Your task to perform on an android device: Show the shopping cart on newegg. Add "razer naga" to the cart on newegg Image 0: 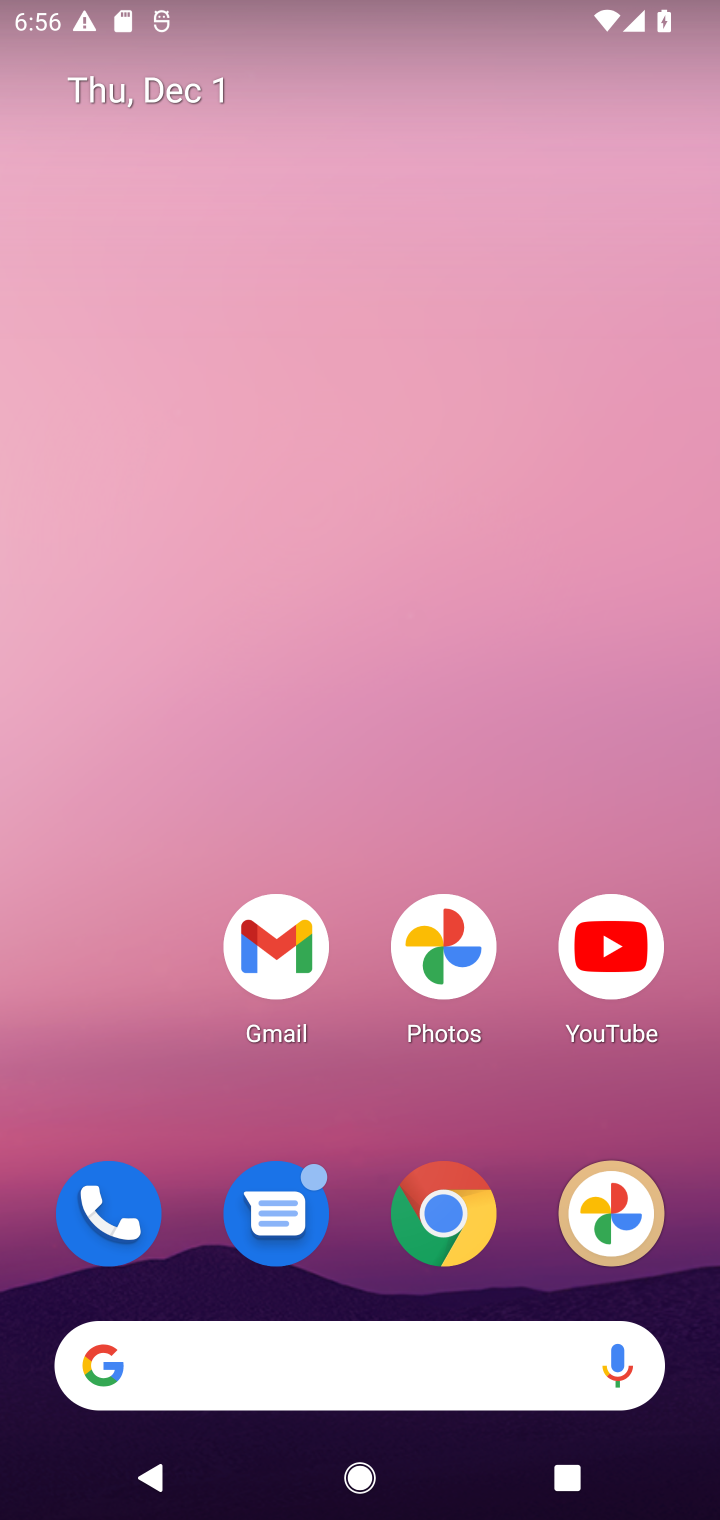
Step 0: click (435, 1383)
Your task to perform on an android device: Show the shopping cart on newegg. Add "razer naga" to the cart on newegg Image 1: 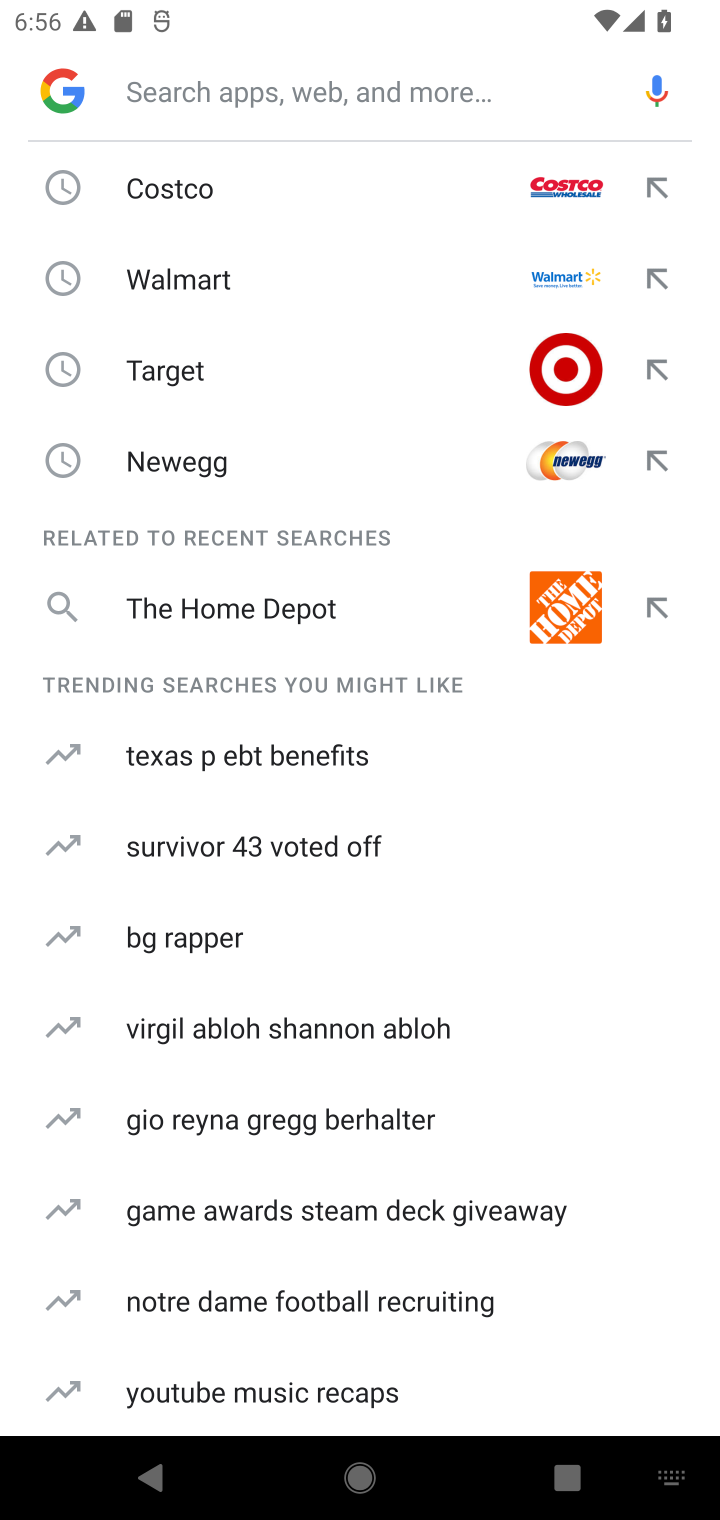
Step 1: type "newegg"
Your task to perform on an android device: Show the shopping cart on newegg. Add "razer naga" to the cart on newegg Image 2: 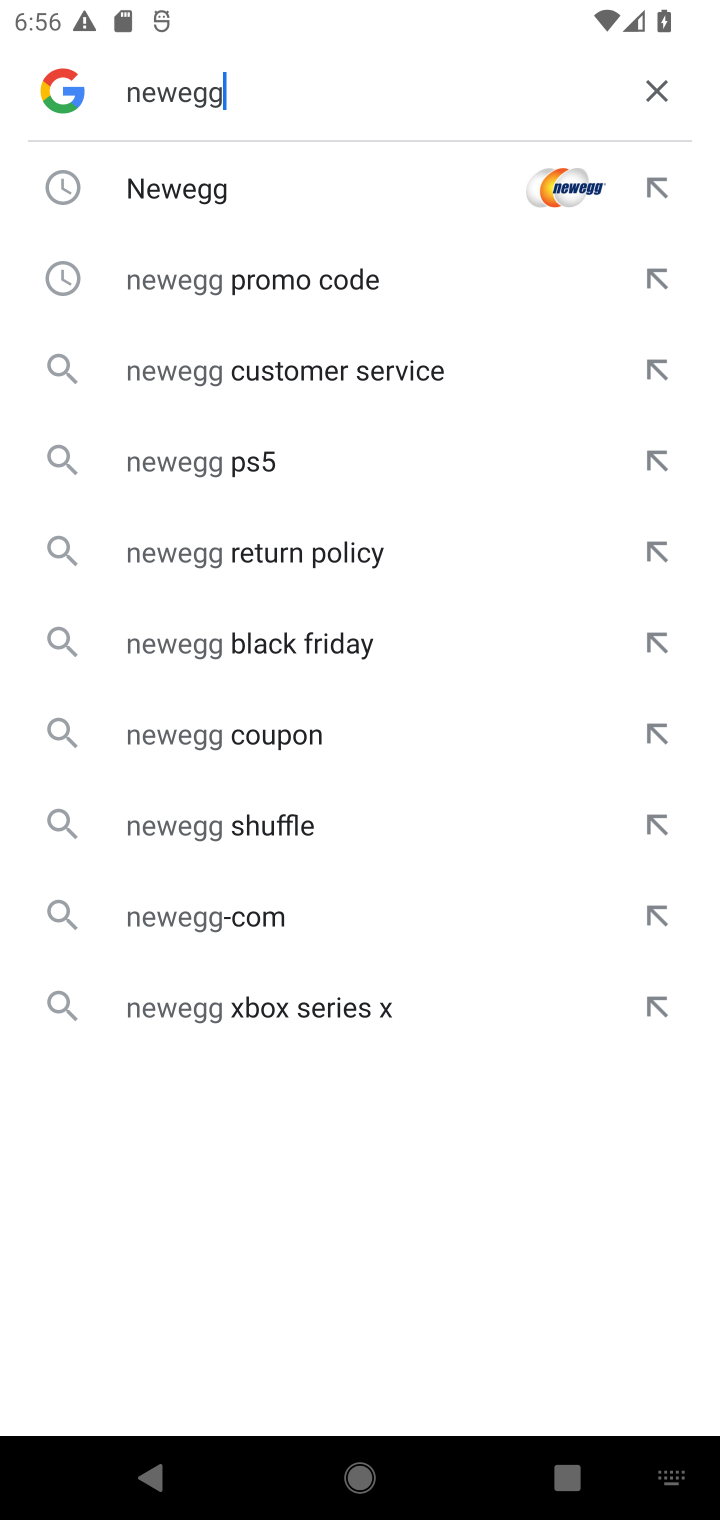
Step 2: click (383, 155)
Your task to perform on an android device: Show the shopping cart on newegg. Add "razer naga" to the cart on newegg Image 3: 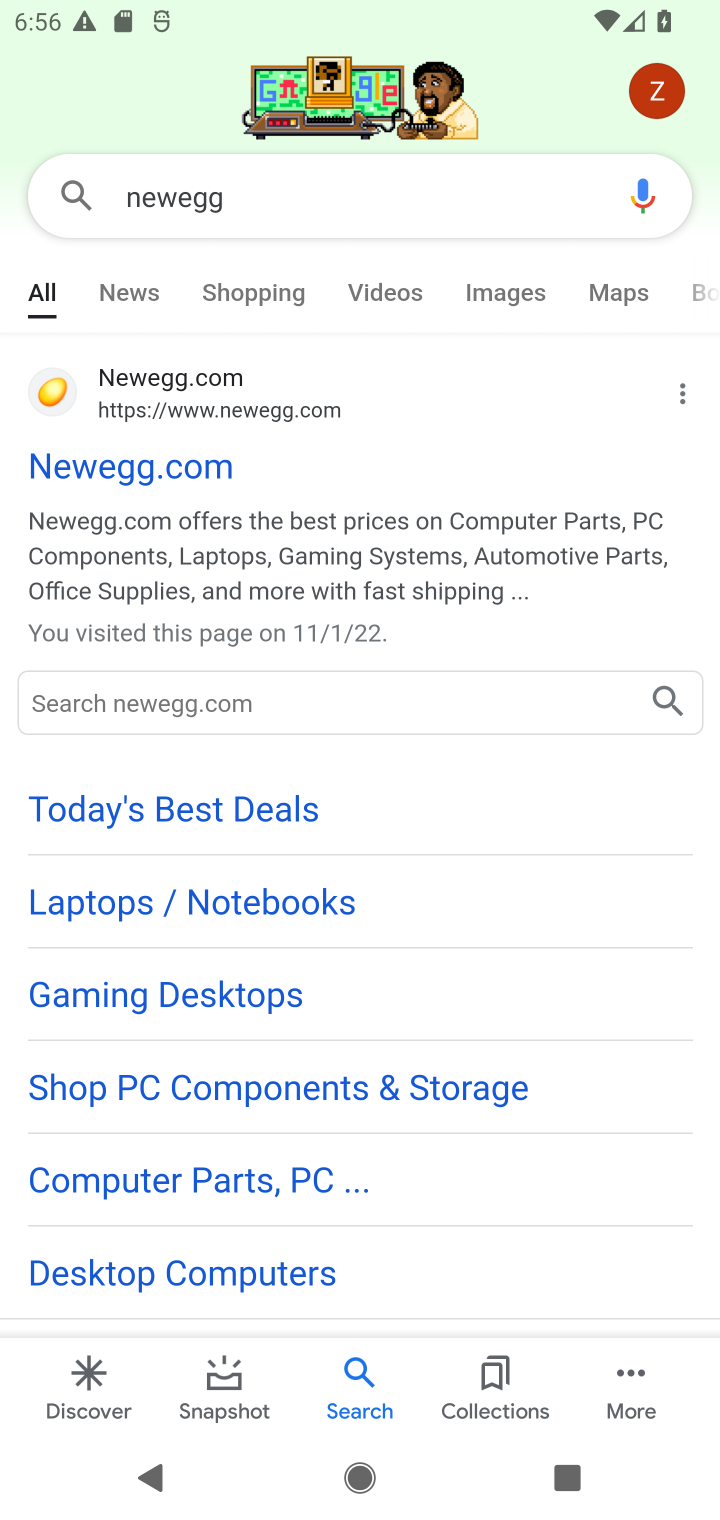
Step 3: click (168, 472)
Your task to perform on an android device: Show the shopping cart on newegg. Add "razer naga" to the cart on newegg Image 4: 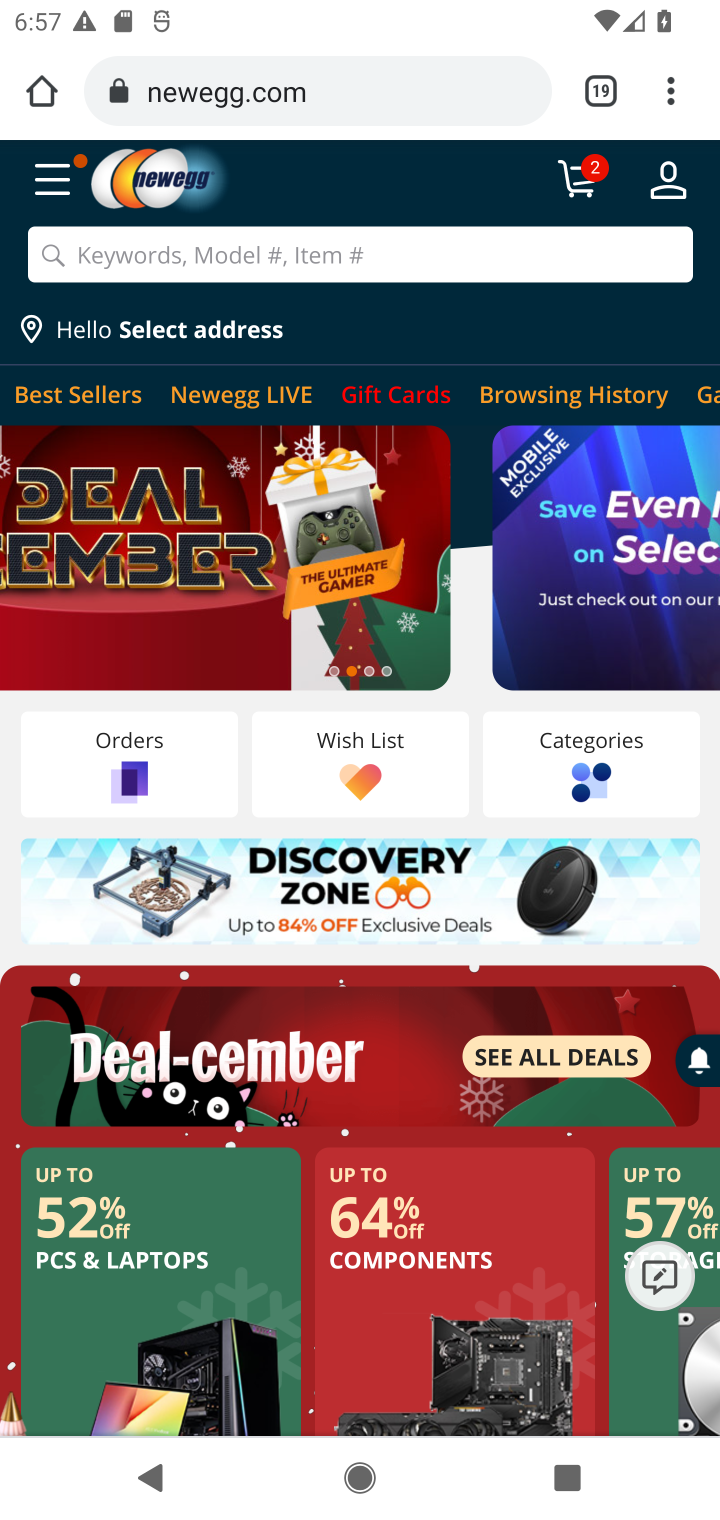
Step 4: click (221, 264)
Your task to perform on an android device: Show the shopping cart on newegg. Add "razer naga" to the cart on newegg Image 5: 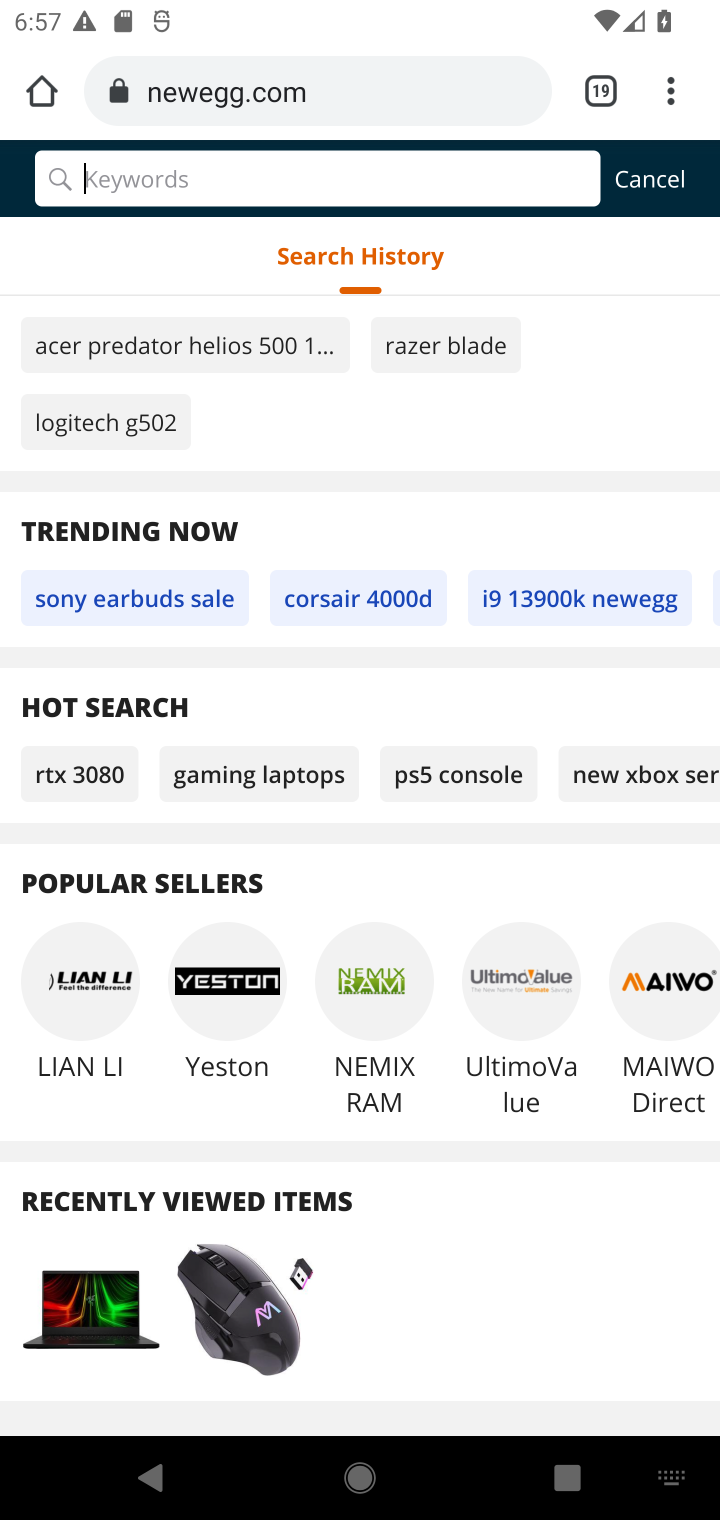
Step 5: task complete